Your task to perform on an android device: turn vacation reply on in the gmail app Image 0: 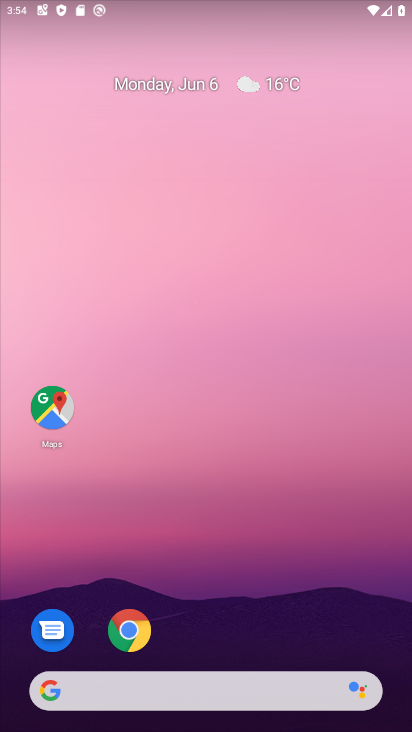
Step 0: drag from (229, 649) to (215, 109)
Your task to perform on an android device: turn vacation reply on in the gmail app Image 1: 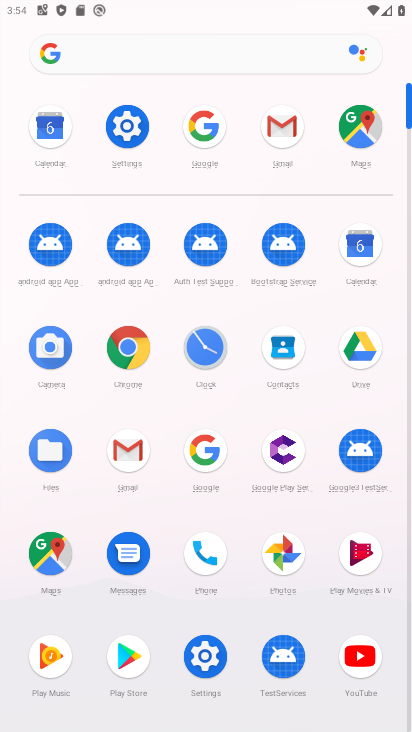
Step 1: click (270, 126)
Your task to perform on an android device: turn vacation reply on in the gmail app Image 2: 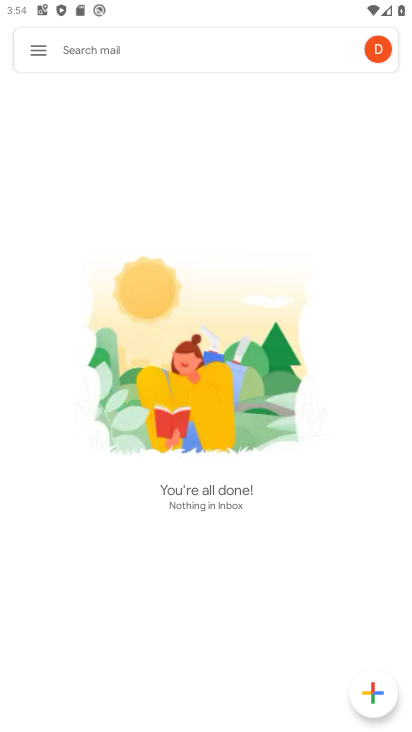
Step 2: click (39, 50)
Your task to perform on an android device: turn vacation reply on in the gmail app Image 3: 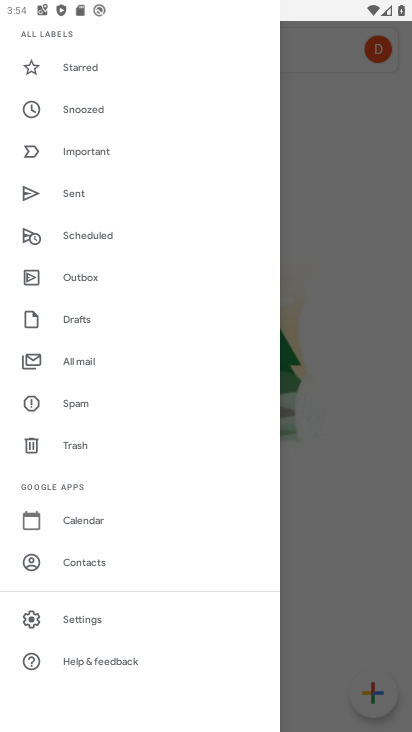
Step 3: click (84, 616)
Your task to perform on an android device: turn vacation reply on in the gmail app Image 4: 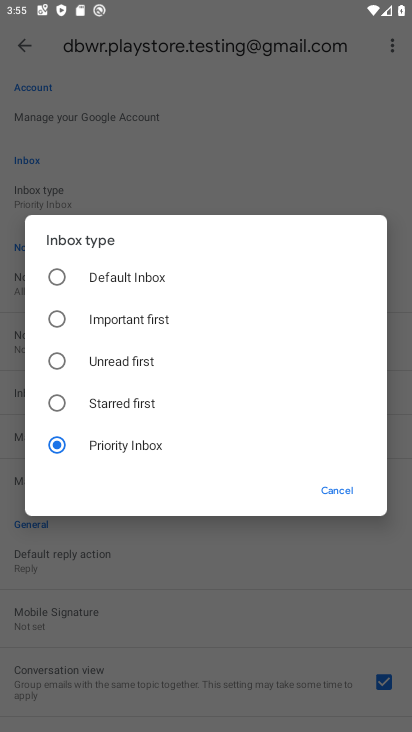
Step 4: click (188, 565)
Your task to perform on an android device: turn vacation reply on in the gmail app Image 5: 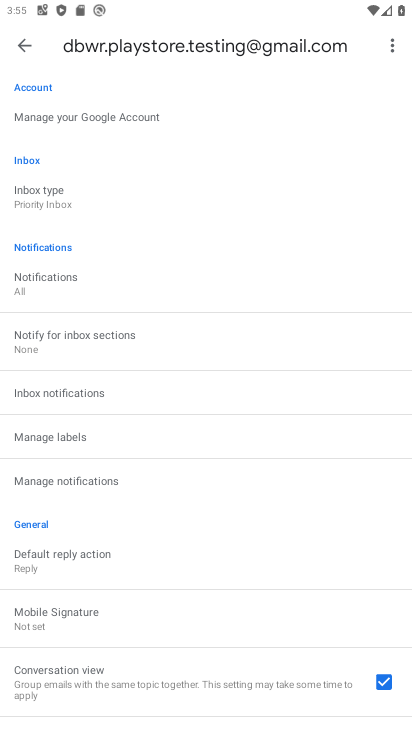
Step 5: drag from (175, 640) to (237, 159)
Your task to perform on an android device: turn vacation reply on in the gmail app Image 6: 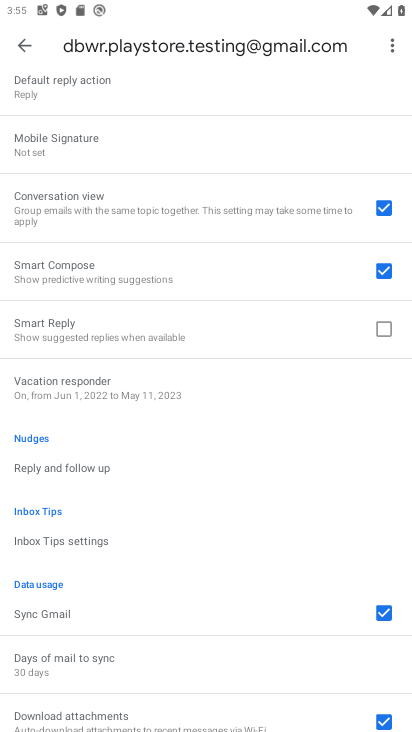
Step 6: click (140, 387)
Your task to perform on an android device: turn vacation reply on in the gmail app Image 7: 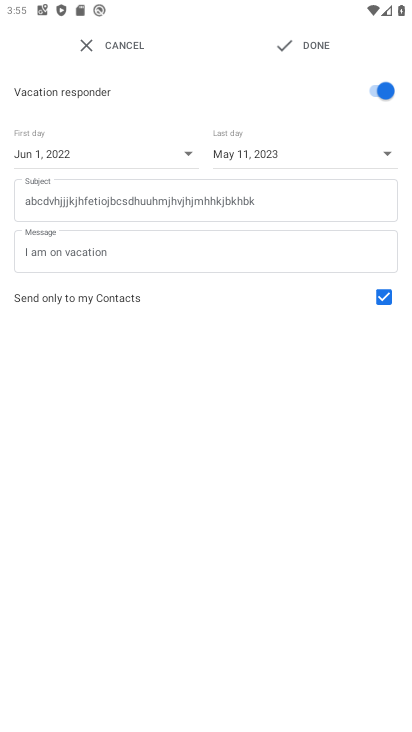
Step 7: task complete